Your task to perform on an android device: uninstall "Google Calendar" Image 0: 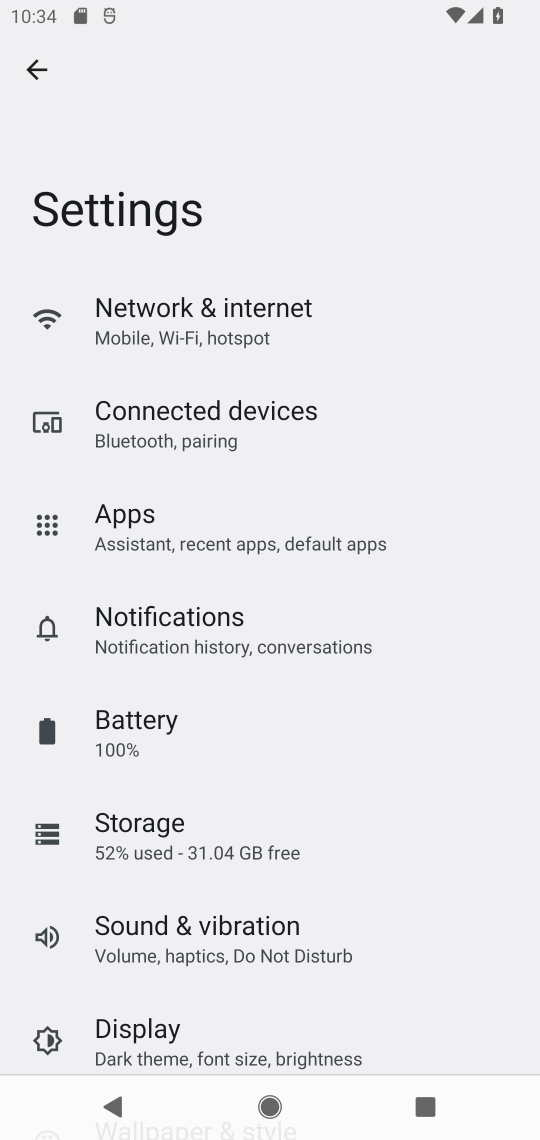
Step 0: press home button
Your task to perform on an android device: uninstall "Google Calendar" Image 1: 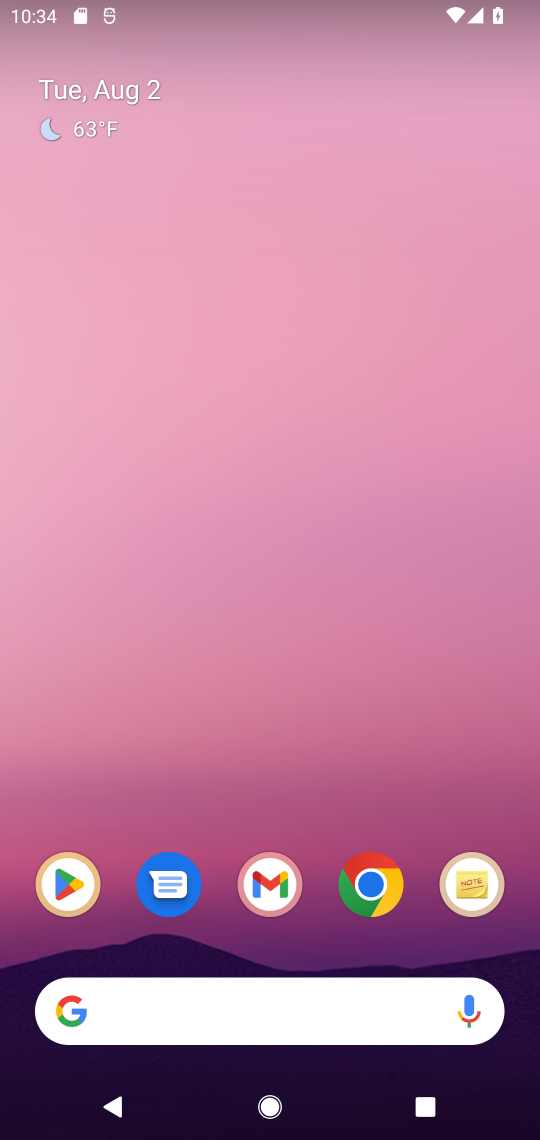
Step 1: click (71, 891)
Your task to perform on an android device: uninstall "Google Calendar" Image 2: 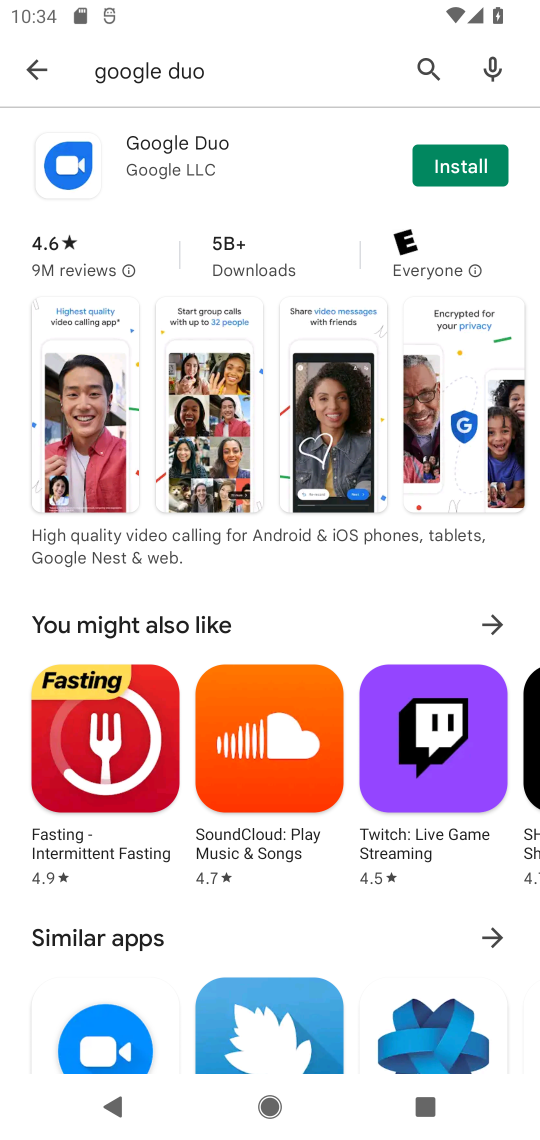
Step 2: click (226, 76)
Your task to perform on an android device: uninstall "Google Calendar" Image 3: 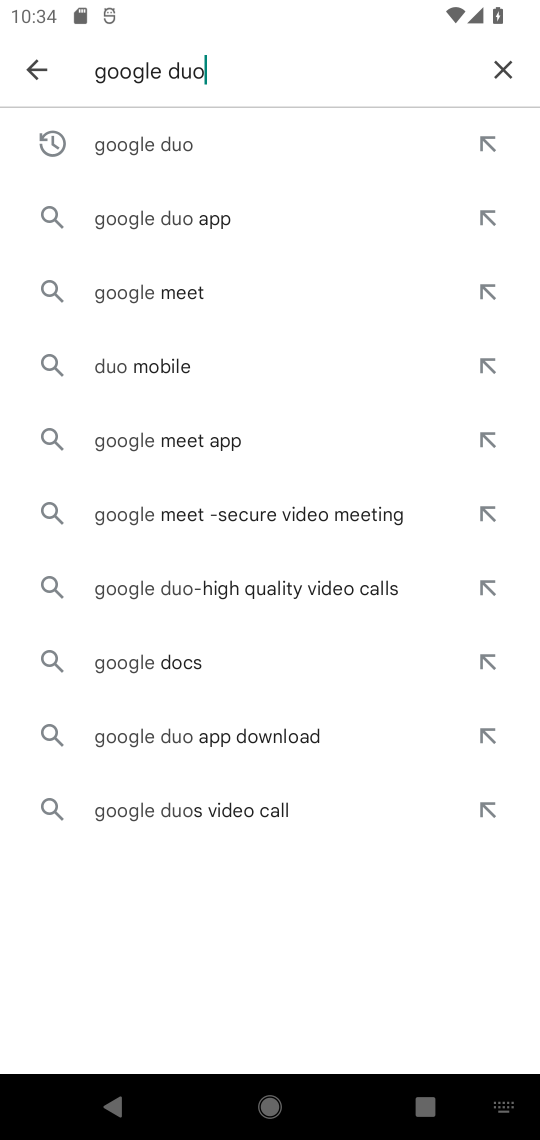
Step 3: click (506, 67)
Your task to perform on an android device: uninstall "Google Calendar" Image 4: 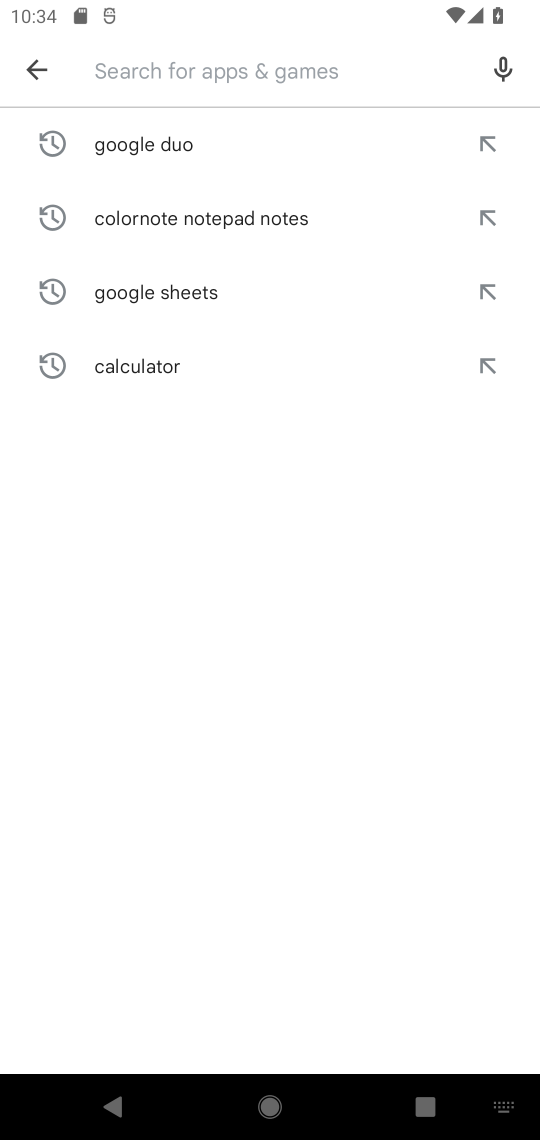
Step 4: type "google calender"
Your task to perform on an android device: uninstall "Google Calendar" Image 5: 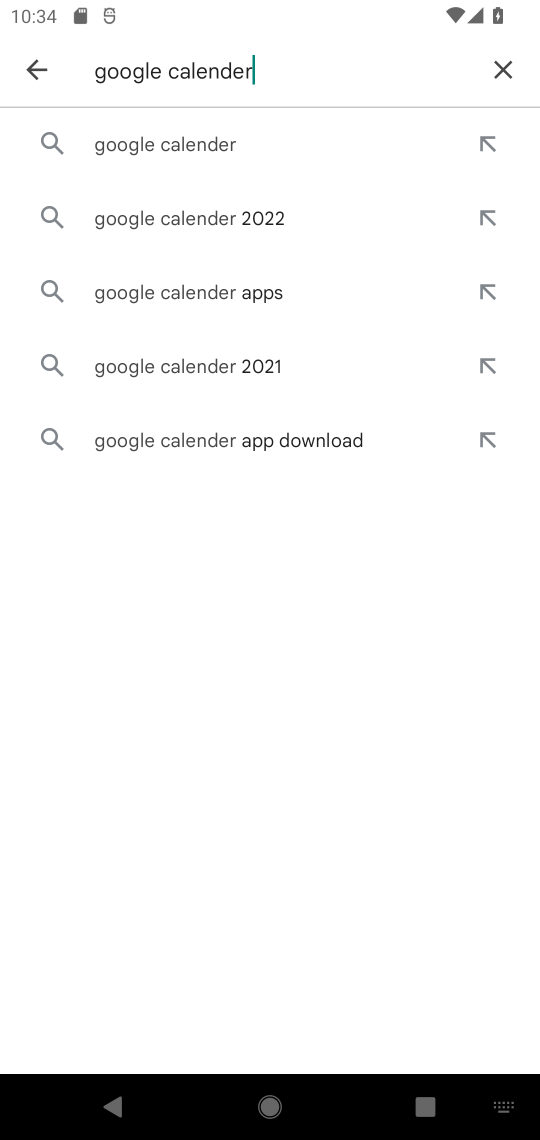
Step 5: click (231, 140)
Your task to perform on an android device: uninstall "Google Calendar" Image 6: 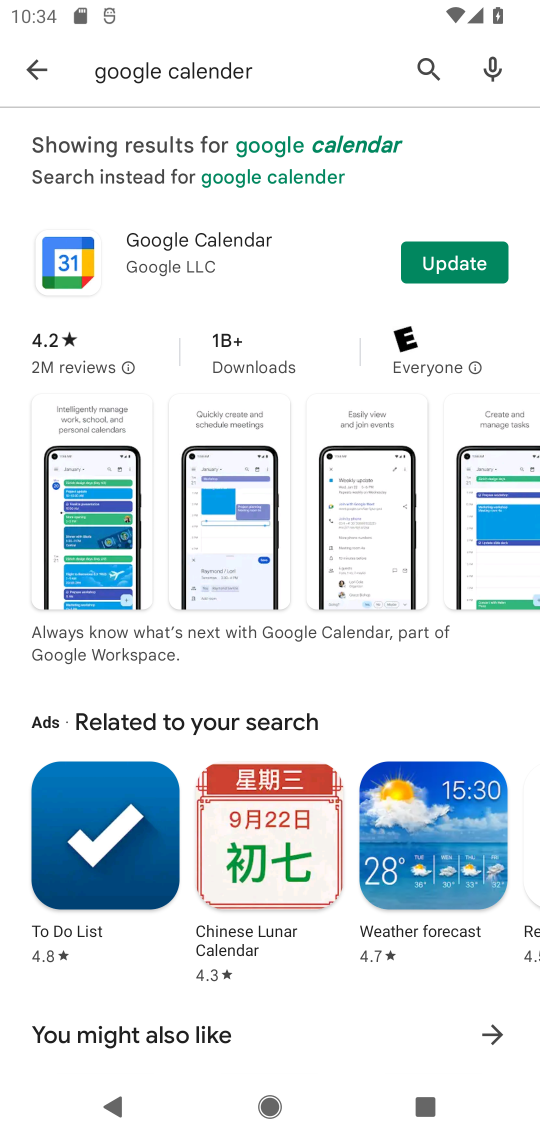
Step 6: click (127, 243)
Your task to perform on an android device: uninstall "Google Calendar" Image 7: 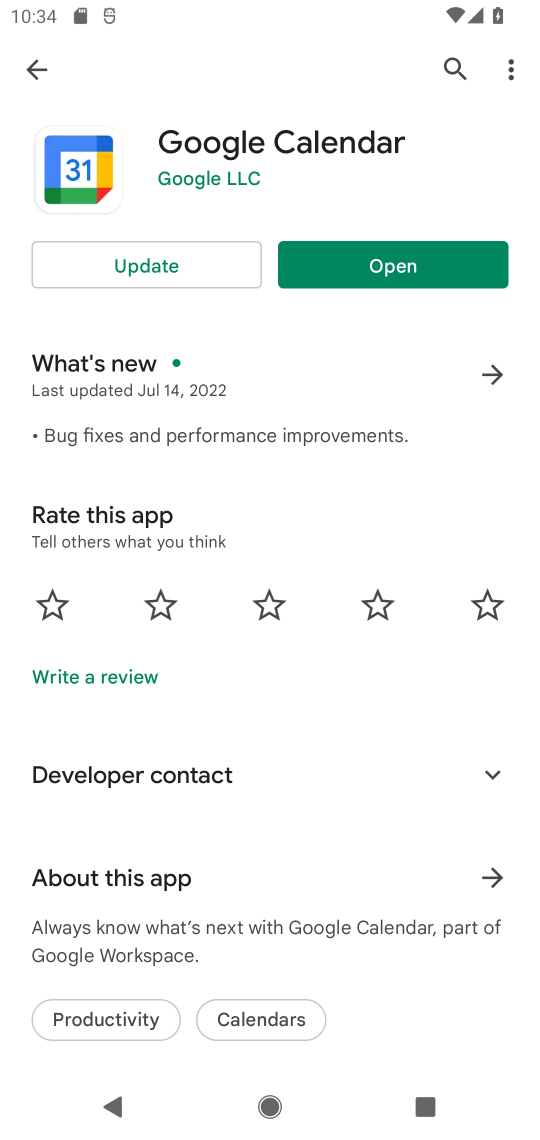
Step 7: task complete